Your task to perform on an android device: open app "Flipkart Online Shopping App" (install if not already installed) Image 0: 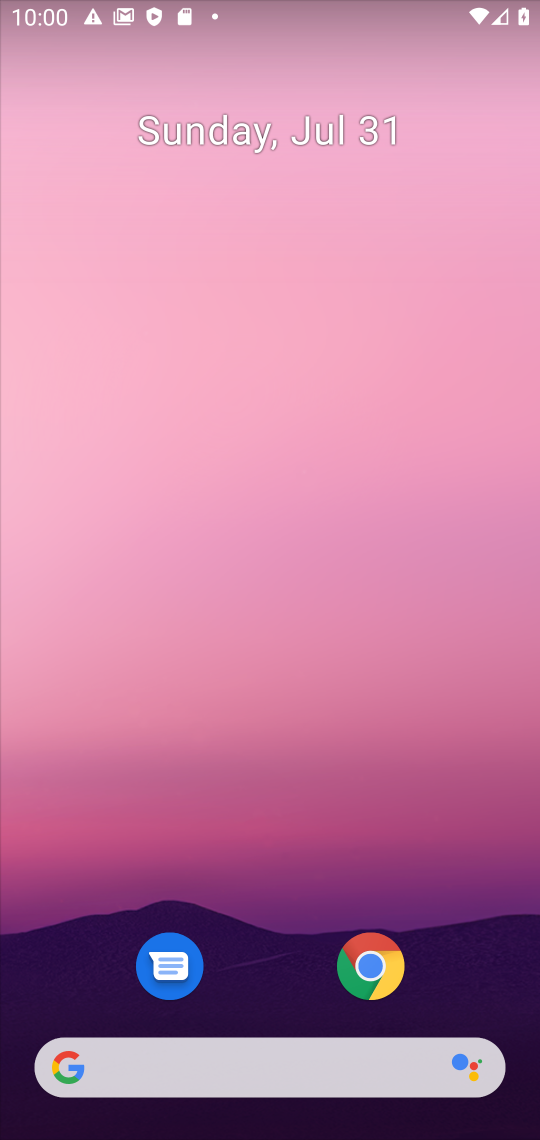
Step 0: drag from (262, 991) to (202, 64)
Your task to perform on an android device: open app "Flipkart Online Shopping App" (install if not already installed) Image 1: 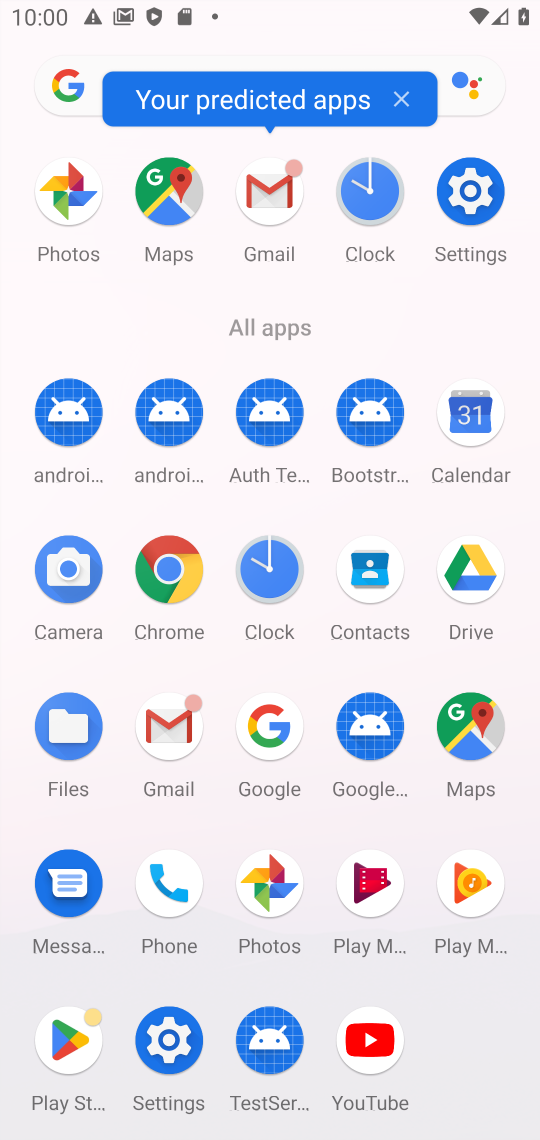
Step 1: click (75, 1031)
Your task to perform on an android device: open app "Flipkart Online Shopping App" (install if not already installed) Image 2: 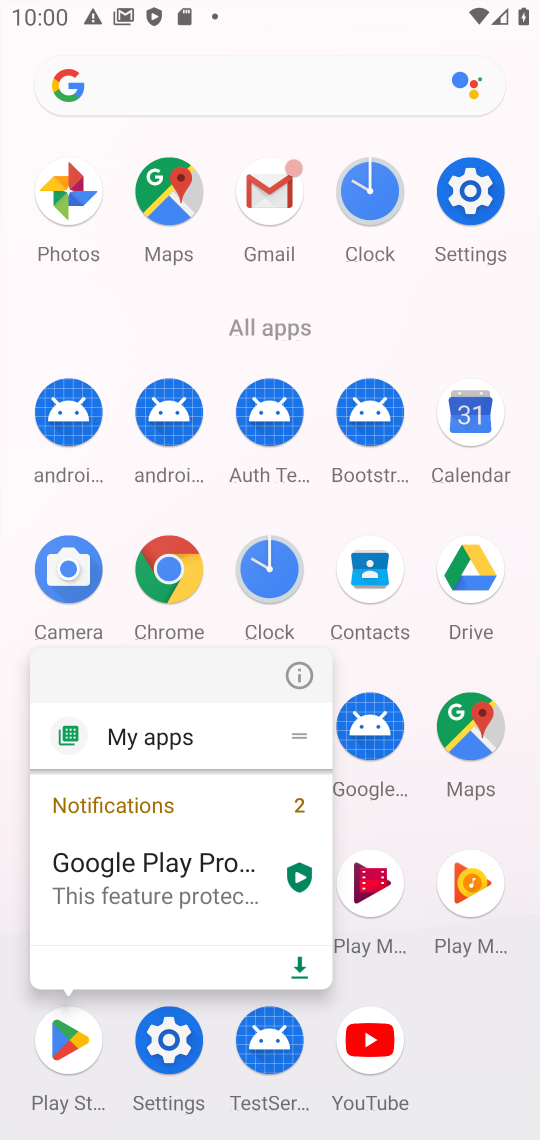
Step 2: click (66, 1057)
Your task to perform on an android device: open app "Flipkart Online Shopping App" (install if not already installed) Image 3: 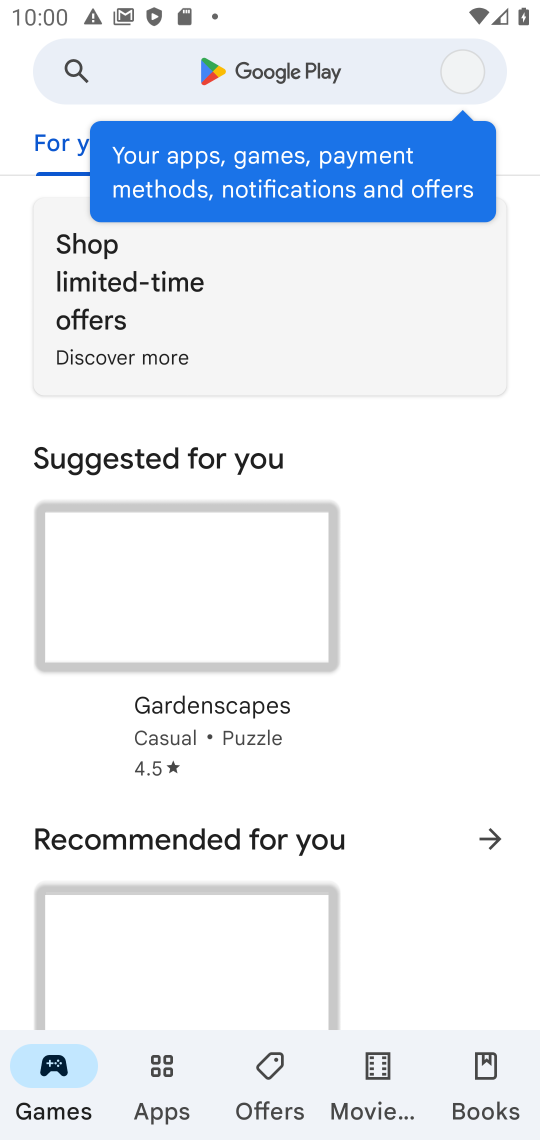
Step 3: click (246, 75)
Your task to perform on an android device: open app "Flipkart Online Shopping App" (install if not already installed) Image 4: 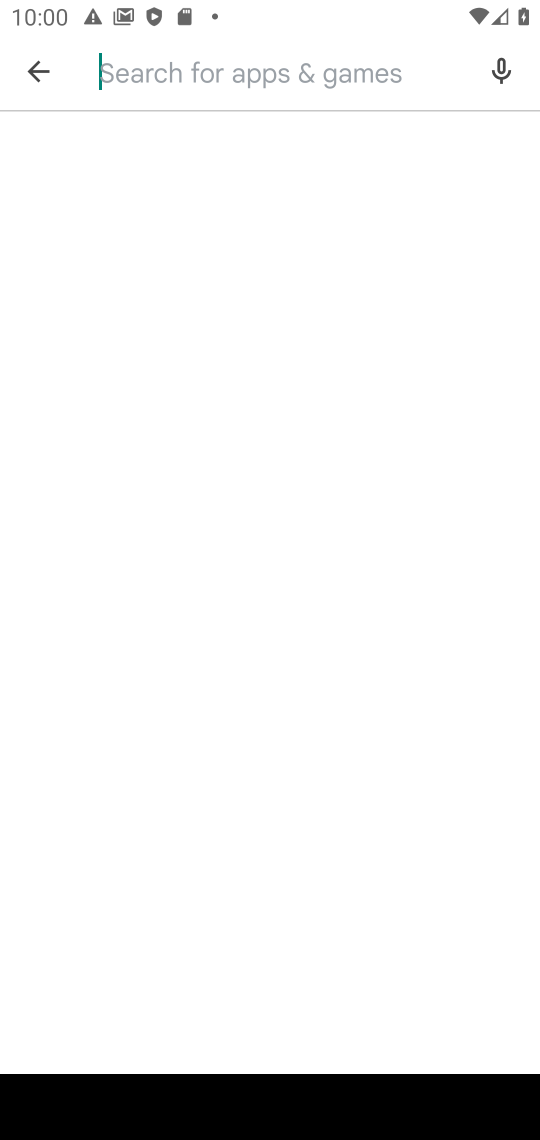
Step 4: type "flipkart"
Your task to perform on an android device: open app "Flipkart Online Shopping App" (install if not already installed) Image 5: 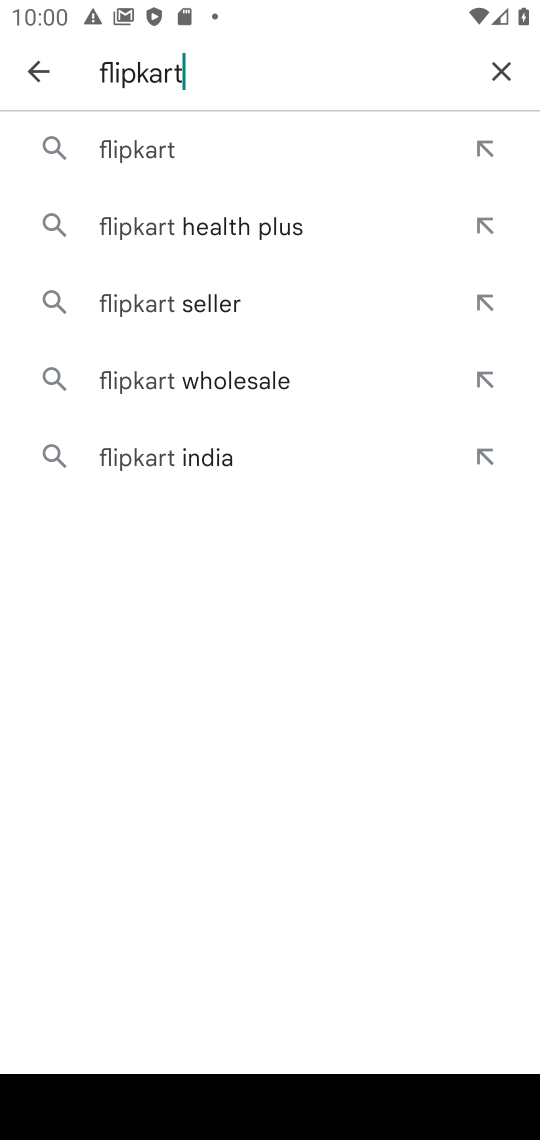
Step 5: click (188, 160)
Your task to perform on an android device: open app "Flipkart Online Shopping App" (install if not already installed) Image 6: 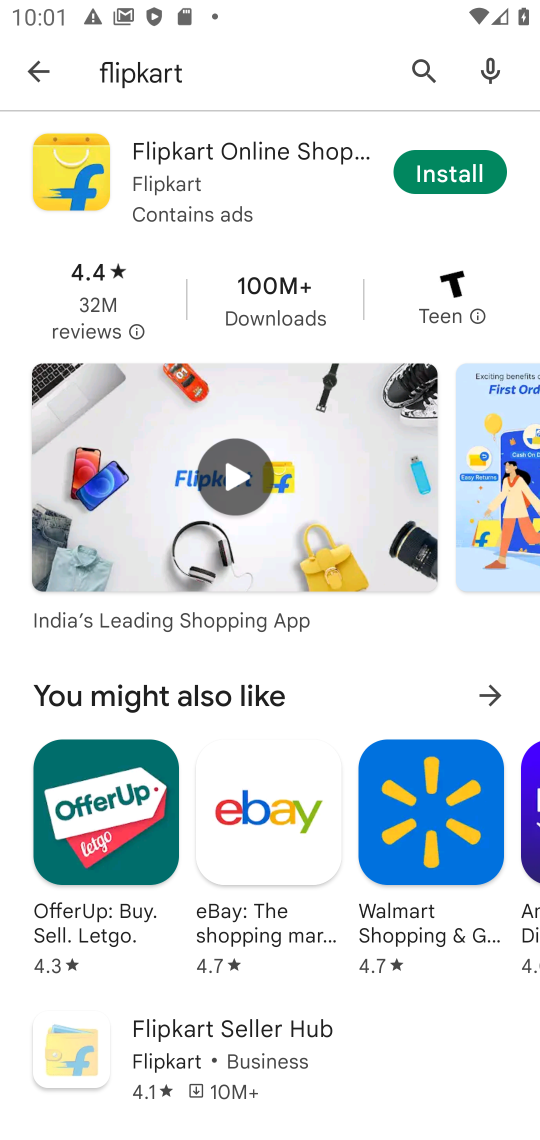
Step 6: click (445, 178)
Your task to perform on an android device: open app "Flipkart Online Shopping App" (install if not already installed) Image 7: 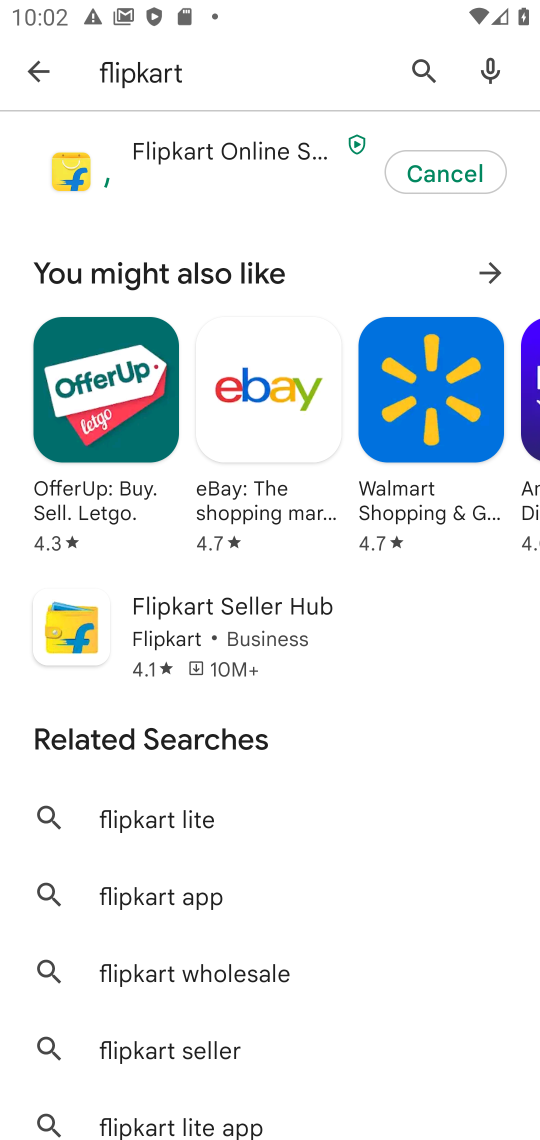
Step 7: click (29, 67)
Your task to perform on an android device: open app "Flipkart Online Shopping App" (install if not already installed) Image 8: 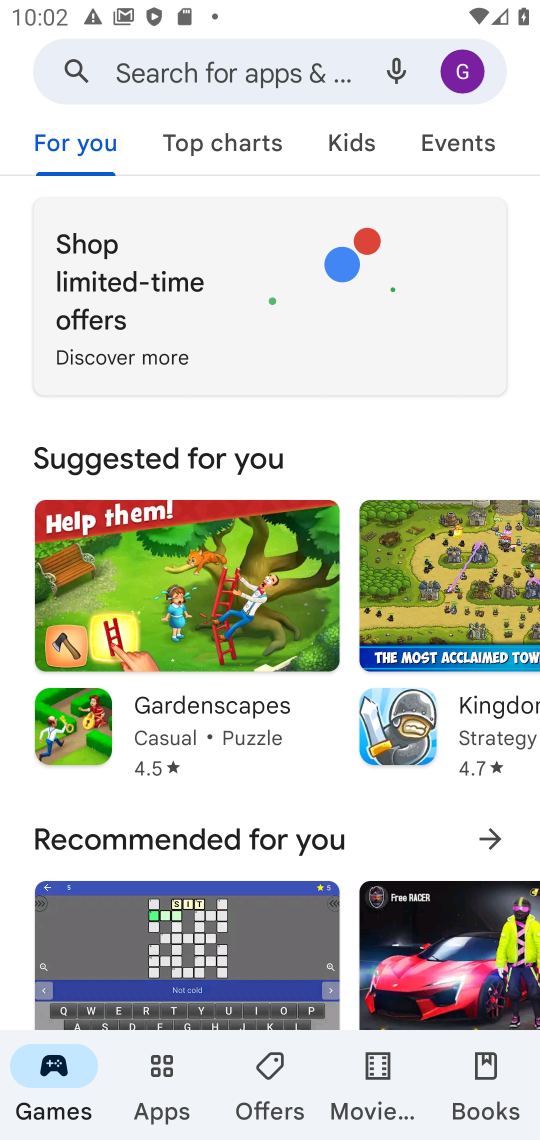
Step 8: click (459, 66)
Your task to perform on an android device: open app "Flipkart Online Shopping App" (install if not already installed) Image 9: 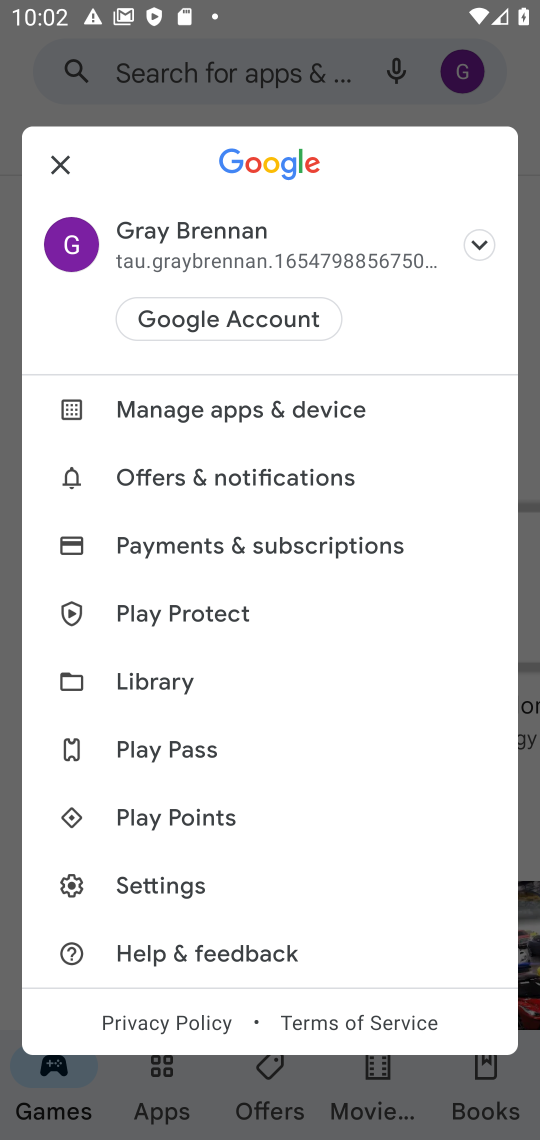
Step 9: click (211, 405)
Your task to perform on an android device: open app "Flipkart Online Shopping App" (install if not already installed) Image 10: 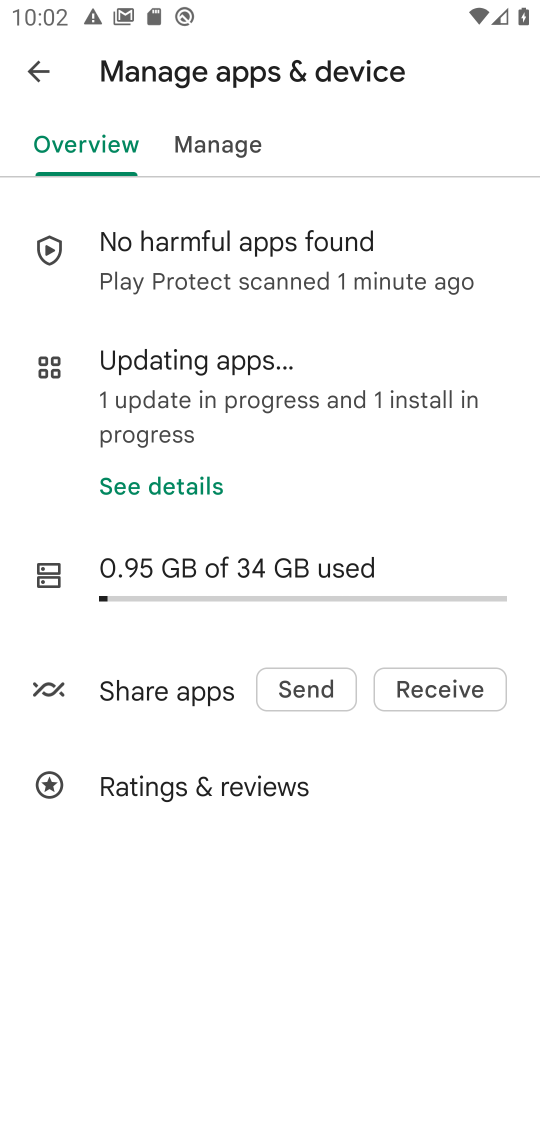
Step 10: click (224, 407)
Your task to perform on an android device: open app "Flipkart Online Shopping App" (install if not already installed) Image 11: 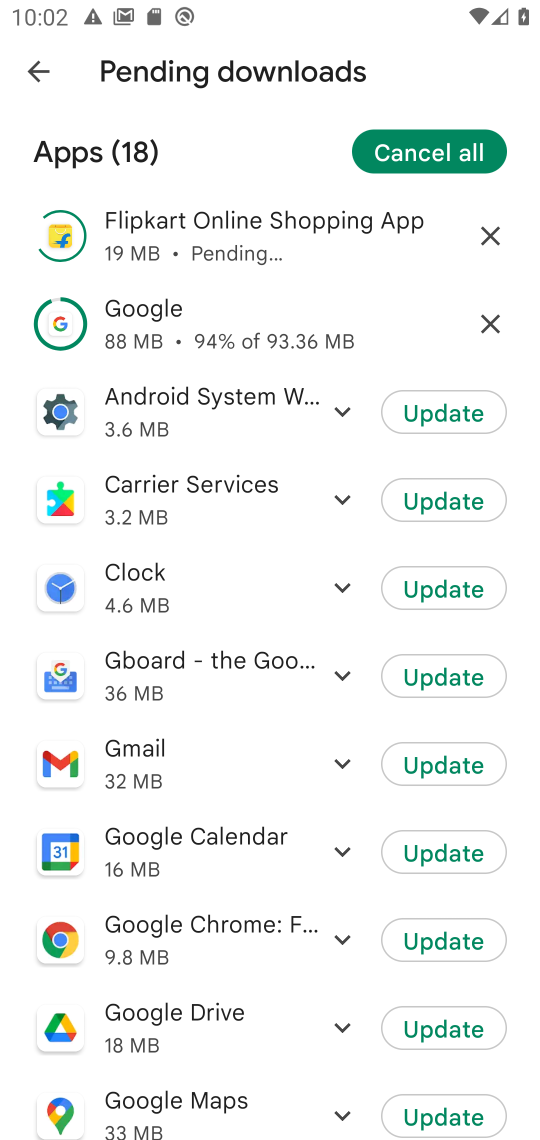
Step 11: click (493, 320)
Your task to perform on an android device: open app "Flipkart Online Shopping App" (install if not already installed) Image 12: 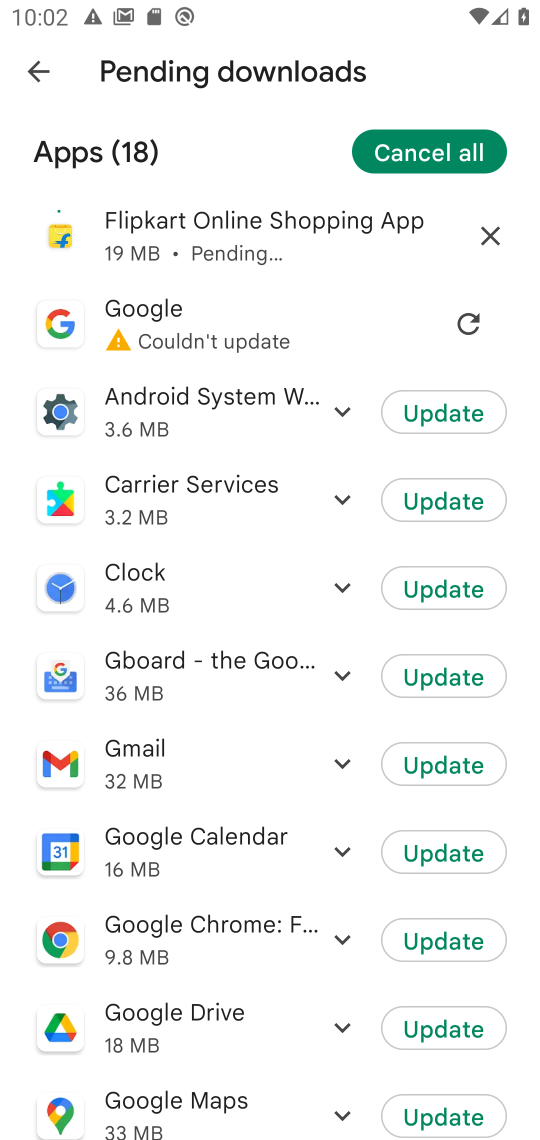
Step 12: click (233, 241)
Your task to perform on an android device: open app "Flipkart Online Shopping App" (install if not already installed) Image 13: 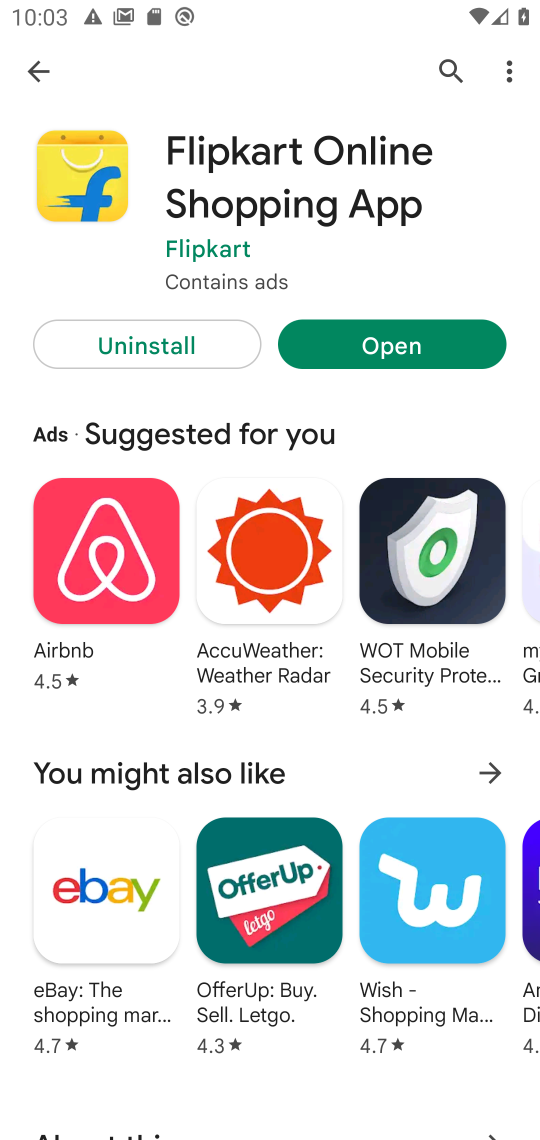
Step 13: click (323, 340)
Your task to perform on an android device: open app "Flipkart Online Shopping App" (install if not already installed) Image 14: 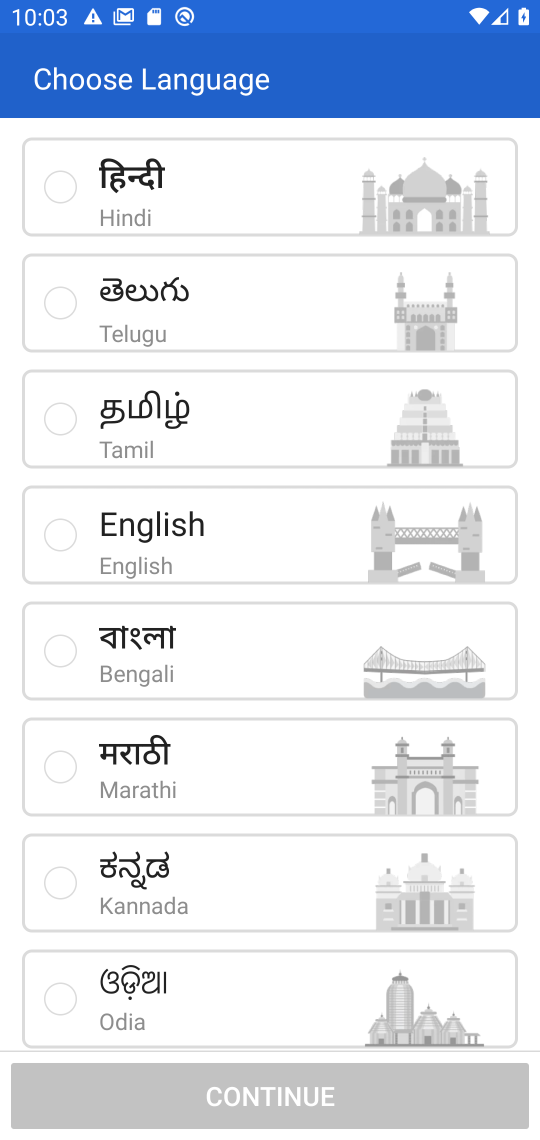
Step 14: click (195, 194)
Your task to perform on an android device: open app "Flipkart Online Shopping App" (install if not already installed) Image 15: 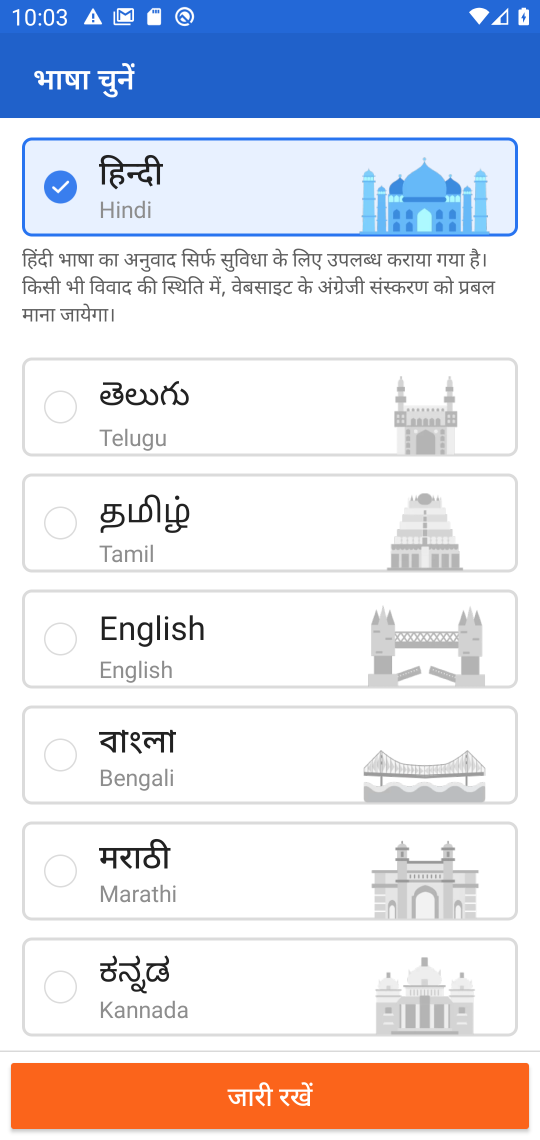
Step 15: click (274, 1122)
Your task to perform on an android device: open app "Flipkart Online Shopping App" (install if not already installed) Image 16: 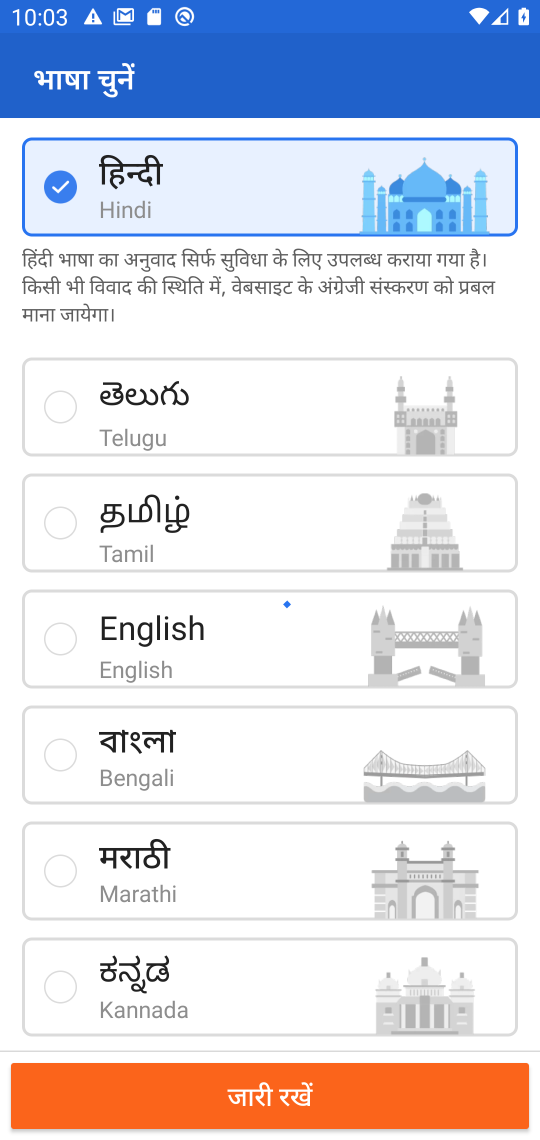
Step 16: click (278, 1107)
Your task to perform on an android device: open app "Flipkart Online Shopping App" (install if not already installed) Image 17: 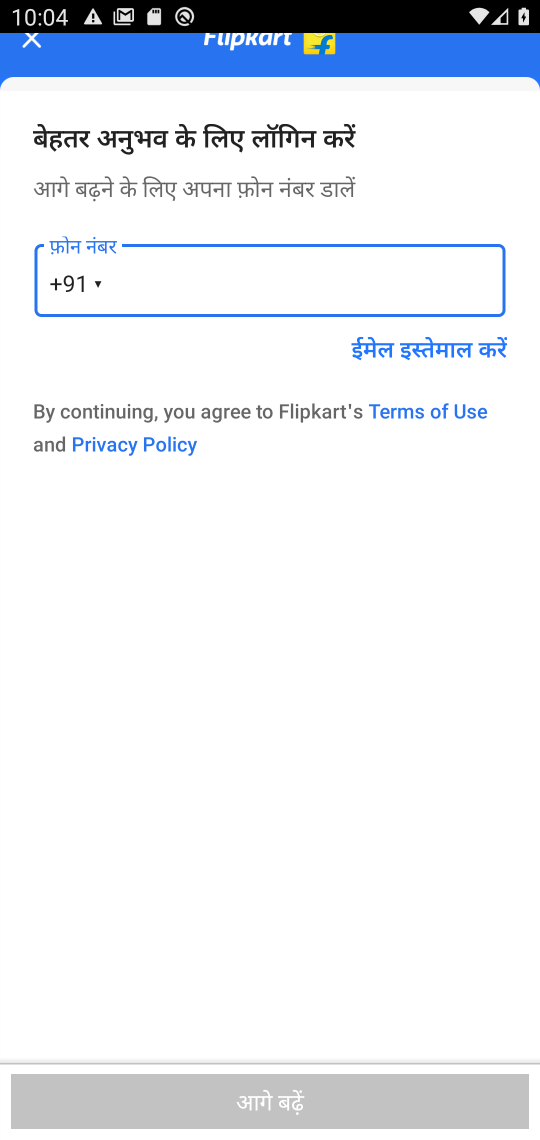
Step 17: task complete